Your task to perform on an android device: change the upload size in google photos Image 0: 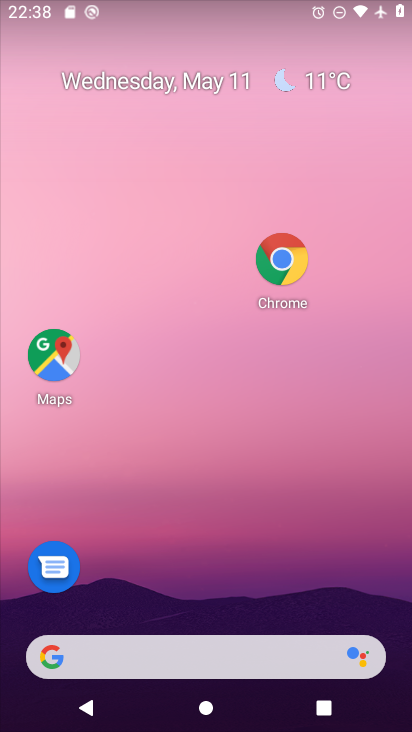
Step 0: drag from (153, 647) to (255, 260)
Your task to perform on an android device: change the upload size in google photos Image 1: 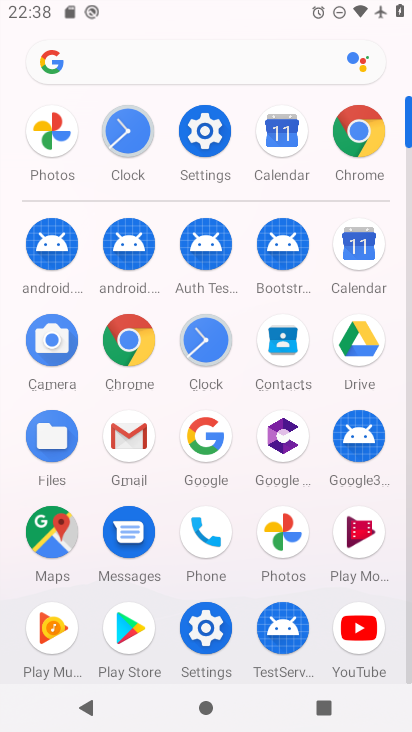
Step 1: click (284, 543)
Your task to perform on an android device: change the upload size in google photos Image 2: 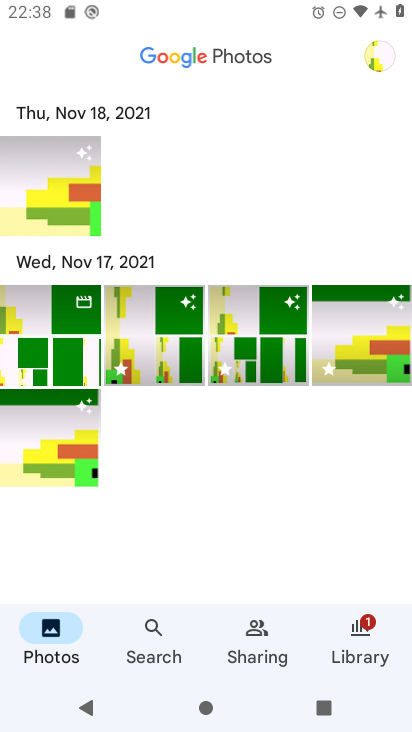
Step 2: click (384, 56)
Your task to perform on an android device: change the upload size in google photos Image 3: 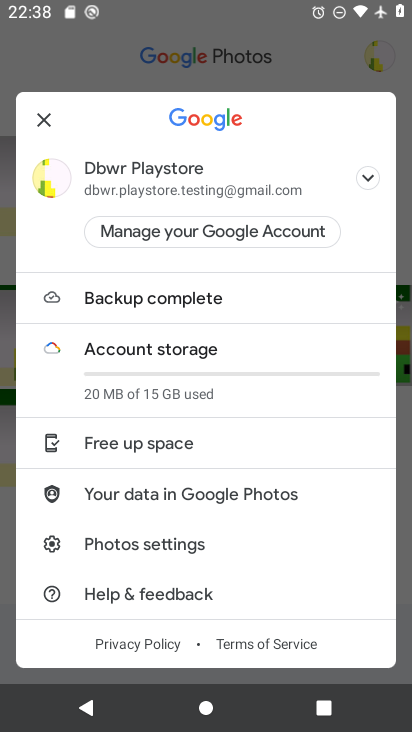
Step 3: click (147, 542)
Your task to perform on an android device: change the upload size in google photos Image 4: 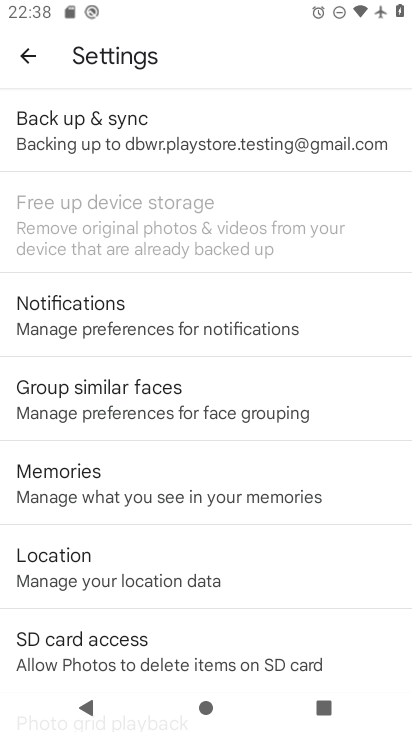
Step 4: click (199, 148)
Your task to perform on an android device: change the upload size in google photos Image 5: 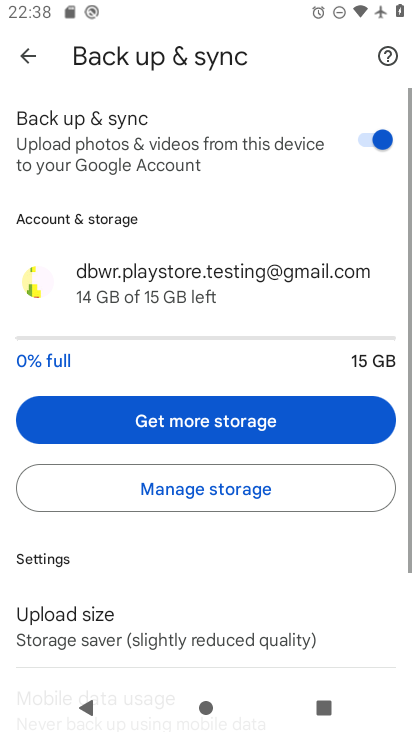
Step 5: drag from (165, 586) to (337, 278)
Your task to perform on an android device: change the upload size in google photos Image 6: 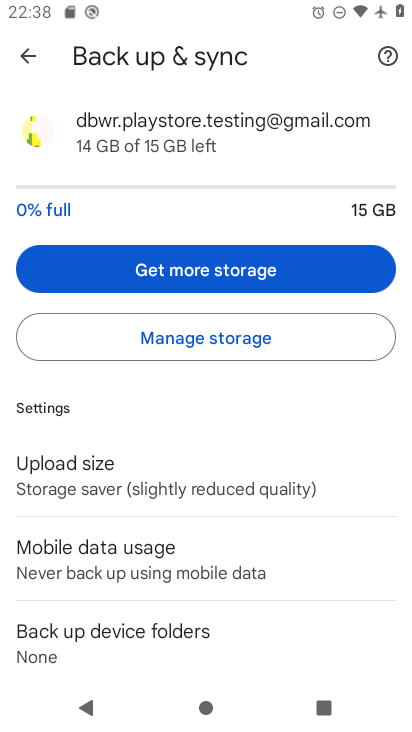
Step 6: click (133, 472)
Your task to perform on an android device: change the upload size in google photos Image 7: 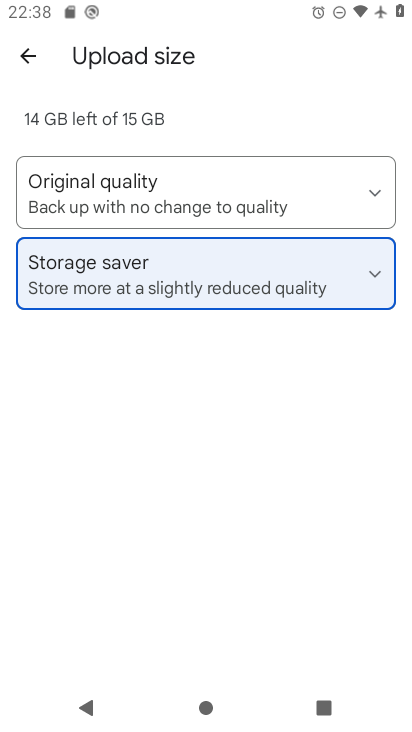
Step 7: click (374, 187)
Your task to perform on an android device: change the upload size in google photos Image 8: 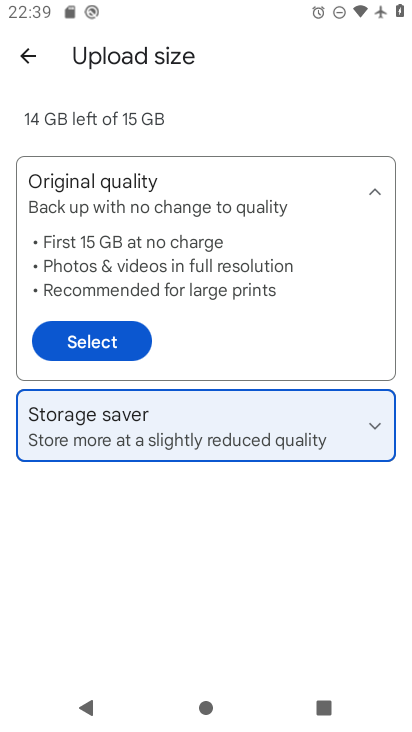
Step 8: click (104, 345)
Your task to perform on an android device: change the upload size in google photos Image 9: 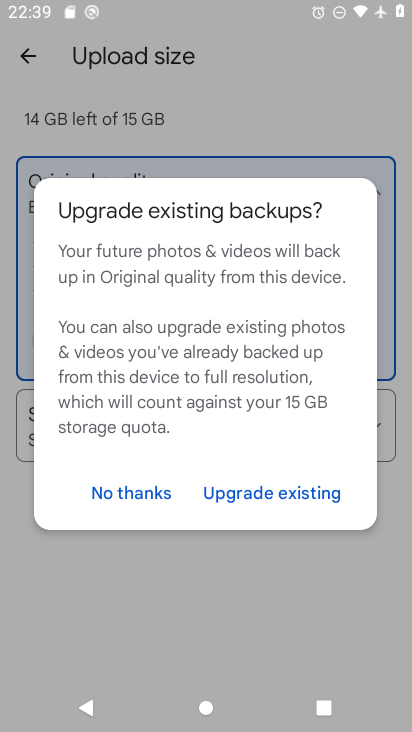
Step 9: click (276, 490)
Your task to perform on an android device: change the upload size in google photos Image 10: 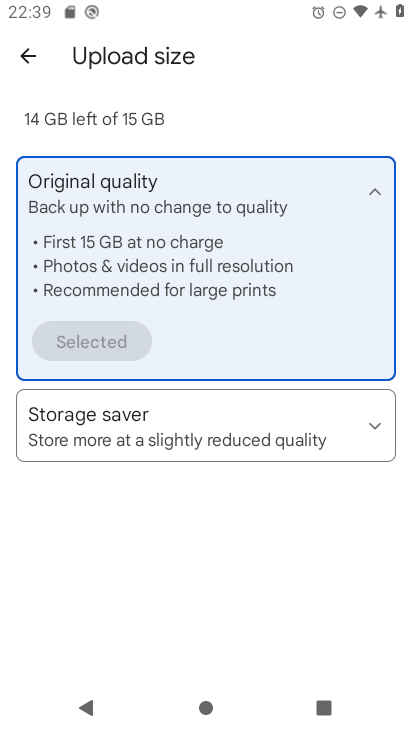
Step 10: task complete